Your task to perform on an android device: turn on wifi Image 0: 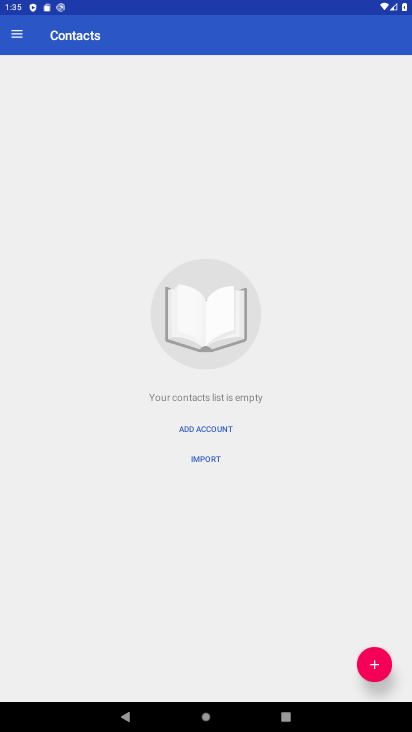
Step 0: press home button
Your task to perform on an android device: turn on wifi Image 1: 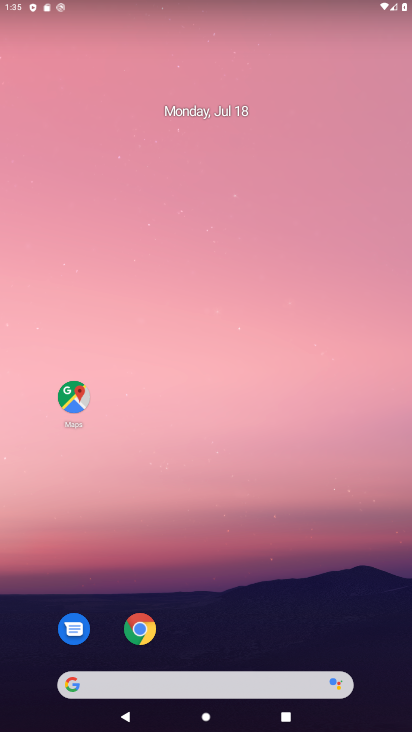
Step 1: drag from (219, 594) to (204, 191)
Your task to perform on an android device: turn on wifi Image 2: 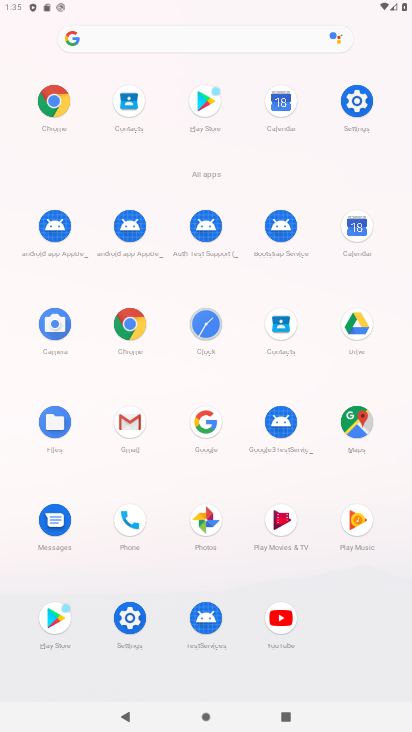
Step 2: click (360, 109)
Your task to perform on an android device: turn on wifi Image 3: 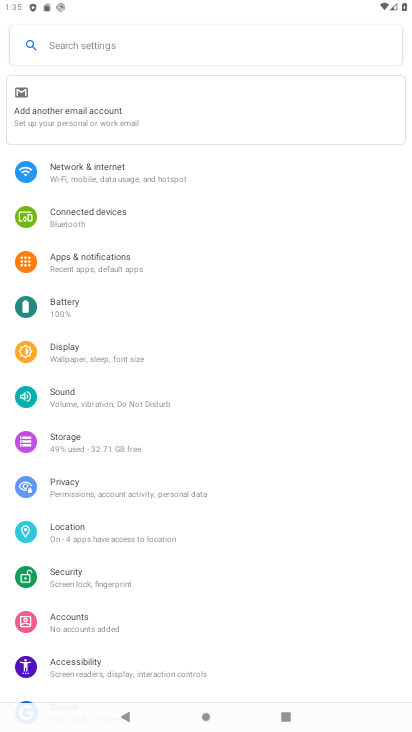
Step 3: click (124, 173)
Your task to perform on an android device: turn on wifi Image 4: 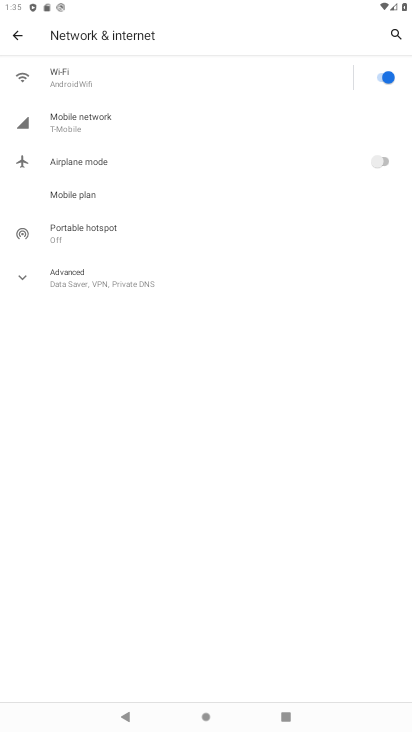
Step 4: click (384, 78)
Your task to perform on an android device: turn on wifi Image 5: 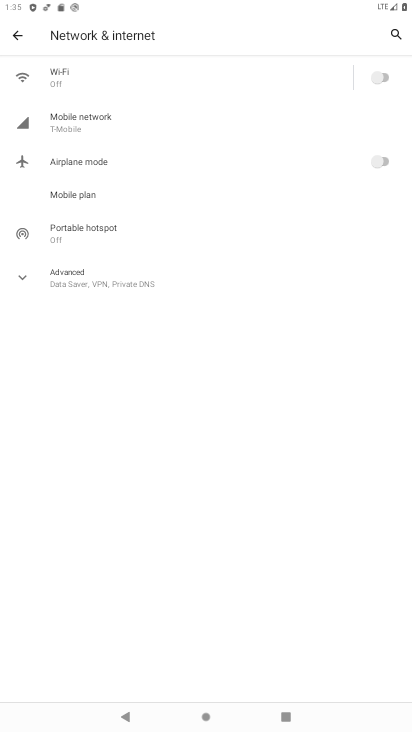
Step 5: task complete